Your task to perform on an android device: search for starred emails in the gmail app Image 0: 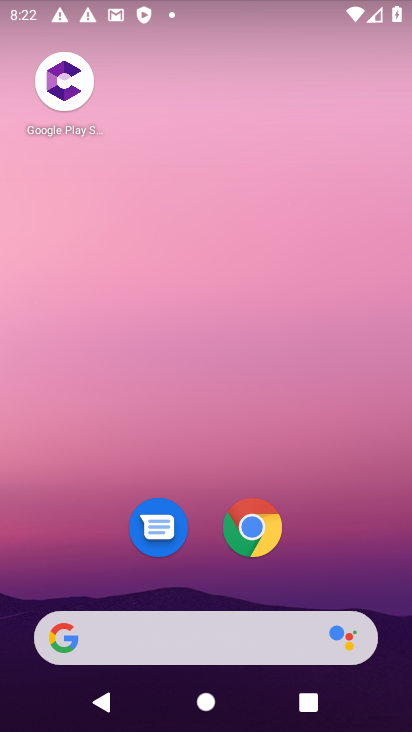
Step 0: drag from (384, 713) to (198, 59)
Your task to perform on an android device: search for starred emails in the gmail app Image 1: 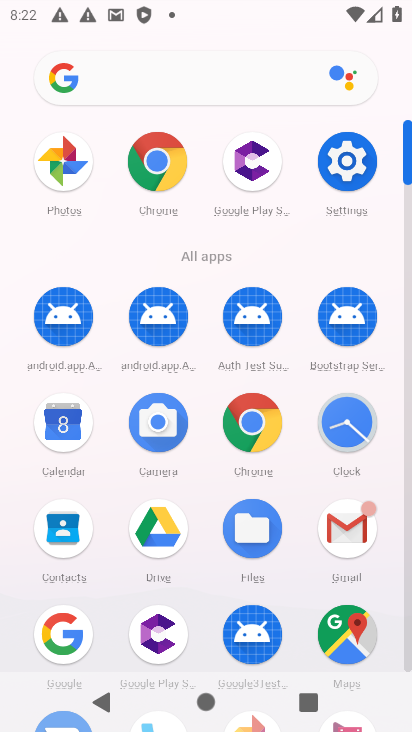
Step 1: click (343, 528)
Your task to perform on an android device: search for starred emails in the gmail app Image 2: 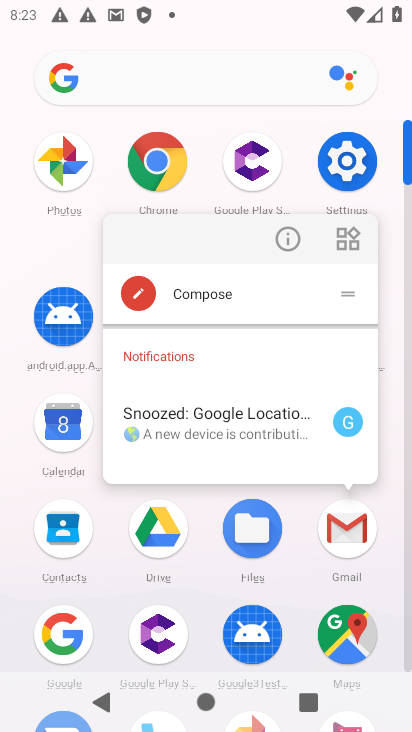
Step 2: click (336, 519)
Your task to perform on an android device: search for starred emails in the gmail app Image 3: 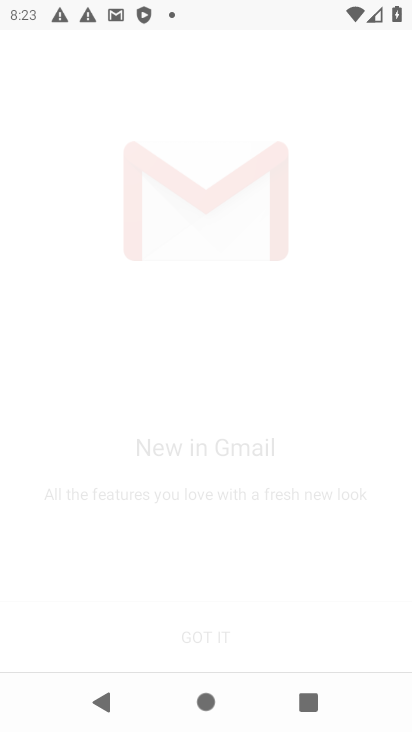
Step 3: click (336, 519)
Your task to perform on an android device: search for starred emails in the gmail app Image 4: 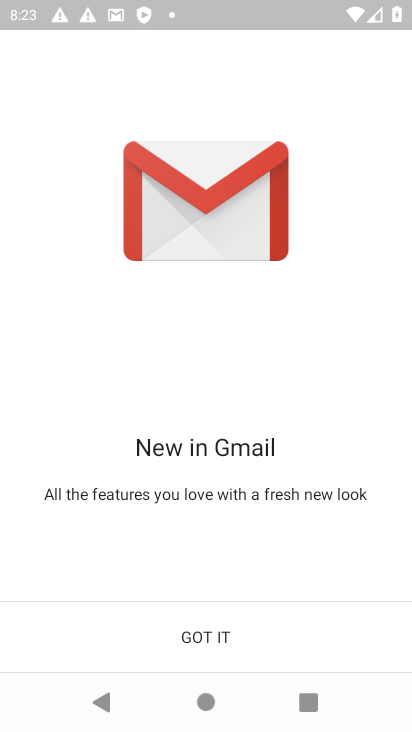
Step 4: click (192, 633)
Your task to perform on an android device: search for starred emails in the gmail app Image 5: 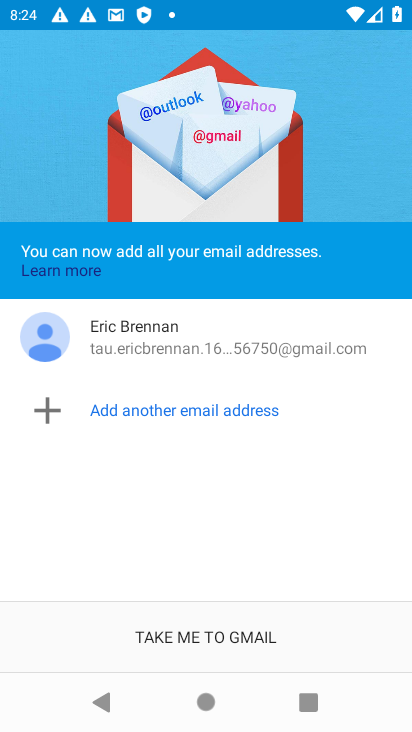
Step 5: click (227, 631)
Your task to perform on an android device: search for starred emails in the gmail app Image 6: 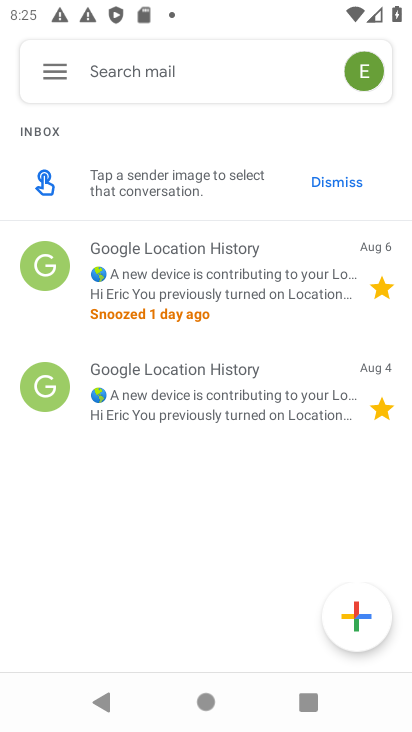
Step 6: click (43, 65)
Your task to perform on an android device: search for starred emails in the gmail app Image 7: 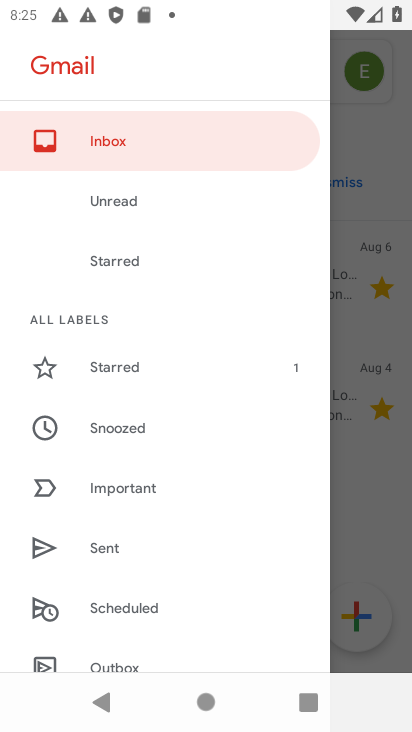
Step 7: click (92, 362)
Your task to perform on an android device: search for starred emails in the gmail app Image 8: 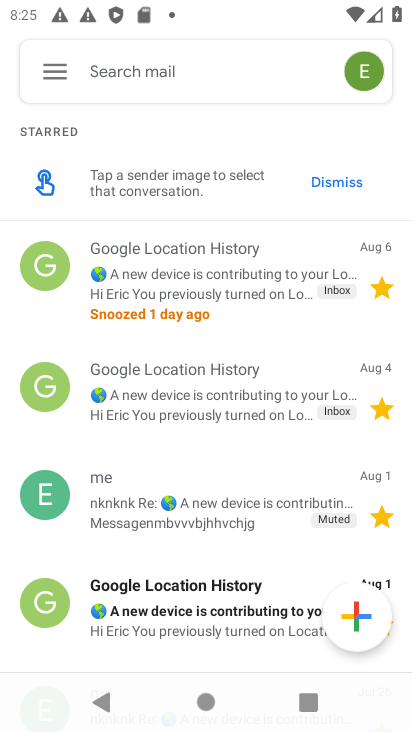
Step 8: task complete